Your task to perform on an android device: open a new tab in the chrome app Image 0: 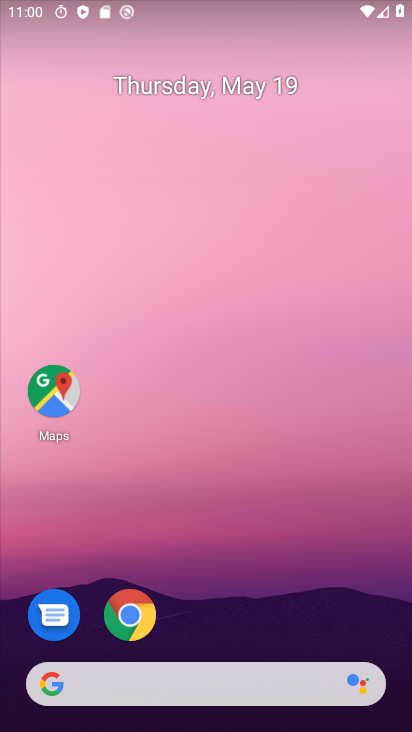
Step 0: click (122, 610)
Your task to perform on an android device: open a new tab in the chrome app Image 1: 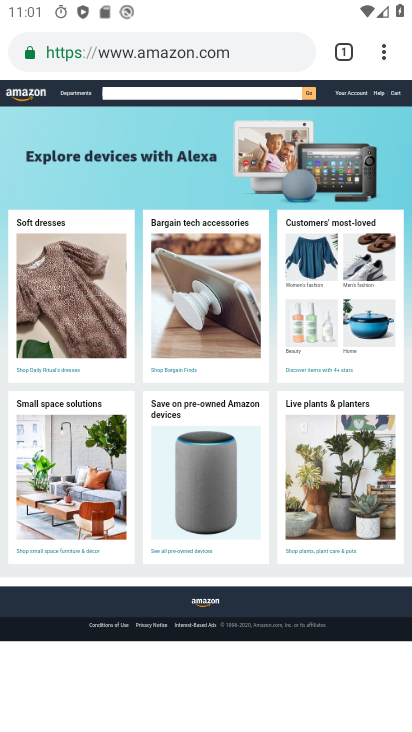
Step 1: click (381, 52)
Your task to perform on an android device: open a new tab in the chrome app Image 2: 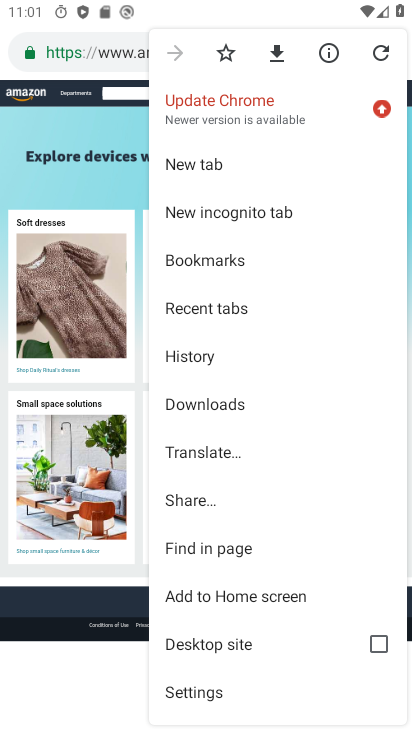
Step 2: click (232, 165)
Your task to perform on an android device: open a new tab in the chrome app Image 3: 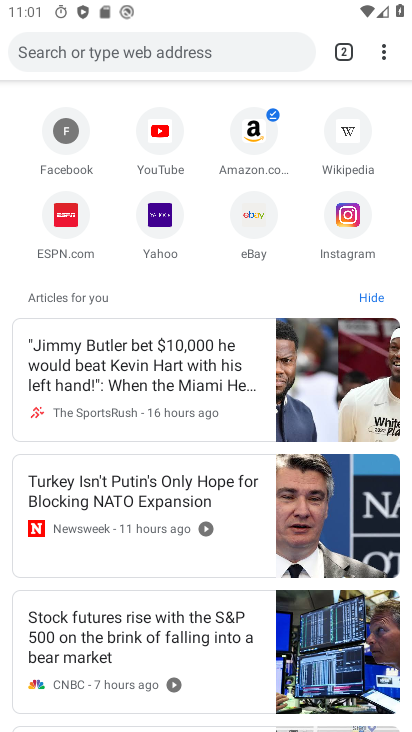
Step 3: task complete